Your task to perform on an android device: What's on my calendar tomorrow? Image 0: 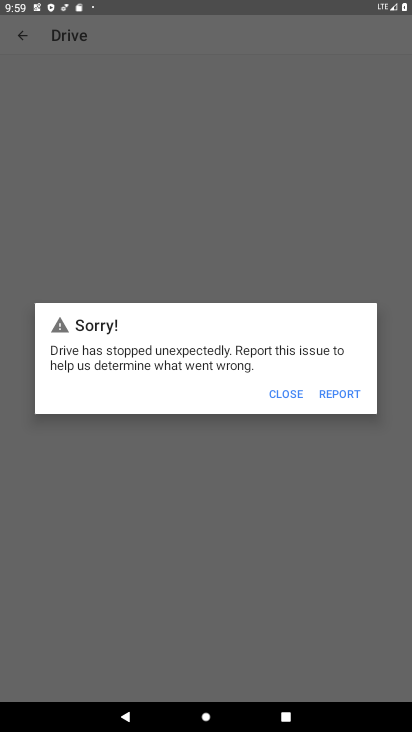
Step 0: press home button
Your task to perform on an android device: What's on my calendar tomorrow? Image 1: 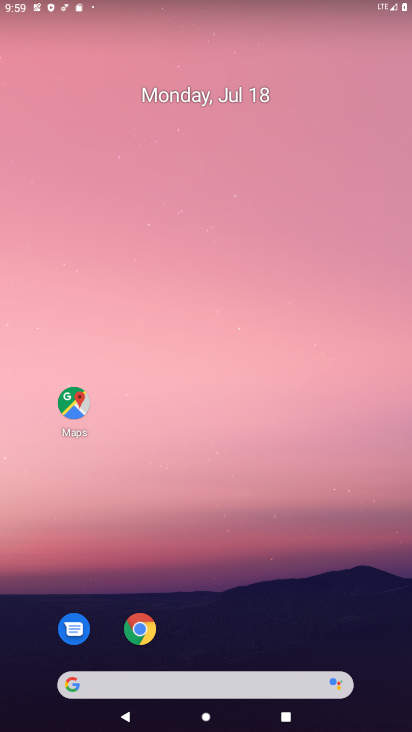
Step 1: drag from (218, 687) to (151, 112)
Your task to perform on an android device: What's on my calendar tomorrow? Image 2: 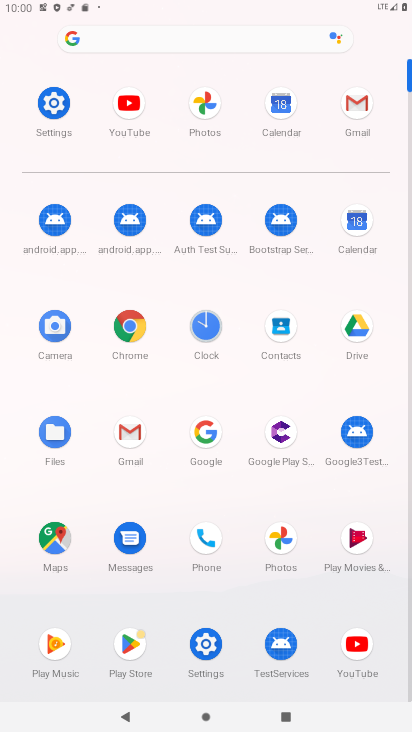
Step 2: click (361, 228)
Your task to perform on an android device: What's on my calendar tomorrow? Image 3: 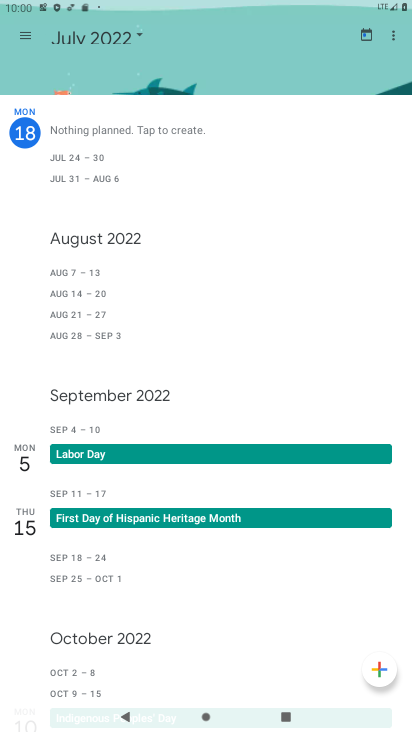
Step 3: click (123, 29)
Your task to perform on an android device: What's on my calendar tomorrow? Image 4: 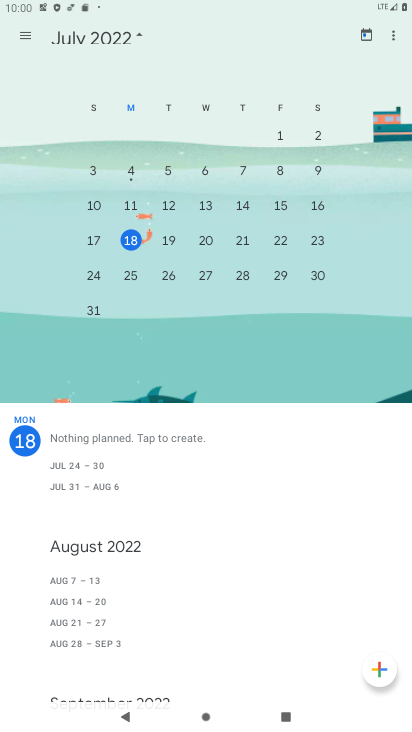
Step 4: click (172, 238)
Your task to perform on an android device: What's on my calendar tomorrow? Image 5: 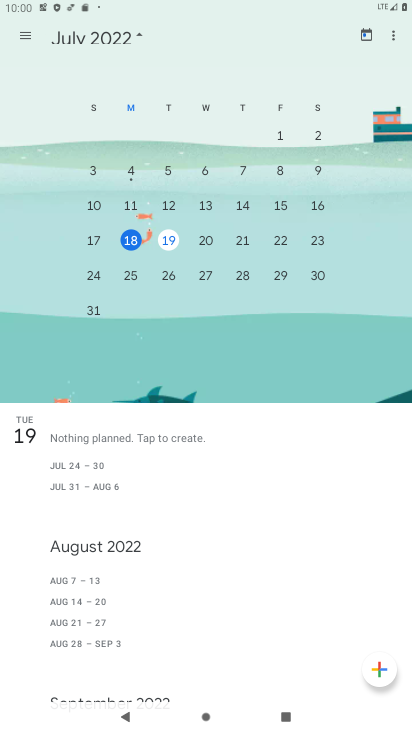
Step 5: task complete